Your task to perform on an android device: Open eBay Image 0: 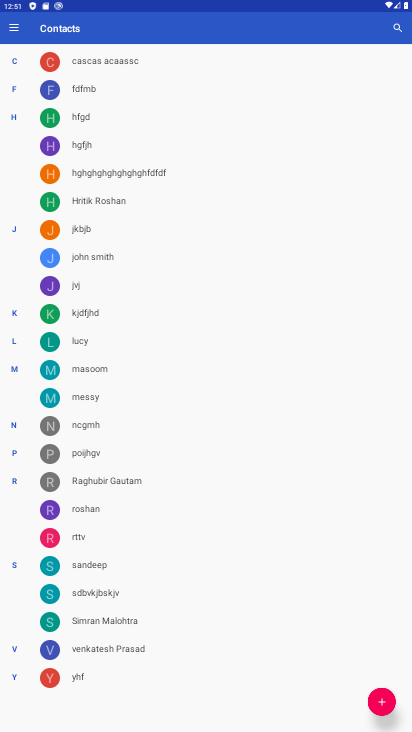
Step 0: press home button
Your task to perform on an android device: Open eBay Image 1: 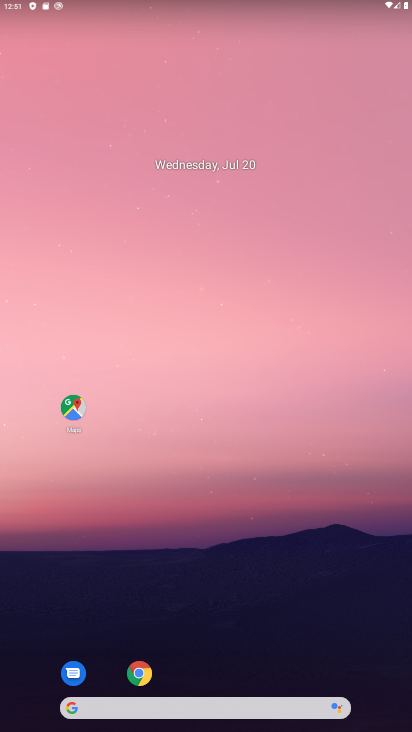
Step 1: click (237, 717)
Your task to perform on an android device: Open eBay Image 2: 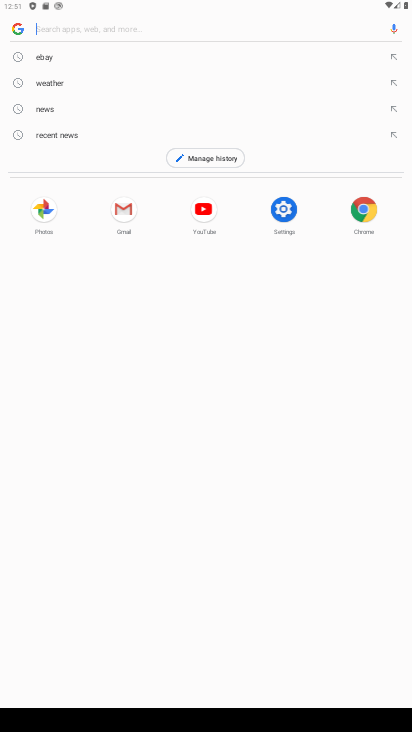
Step 2: click (74, 56)
Your task to perform on an android device: Open eBay Image 3: 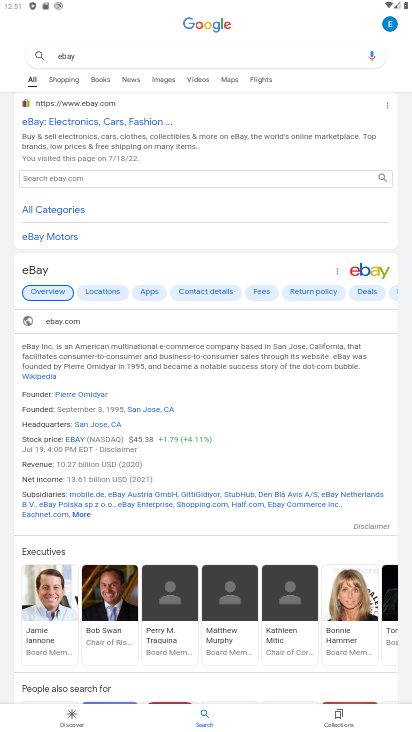
Step 3: click (49, 122)
Your task to perform on an android device: Open eBay Image 4: 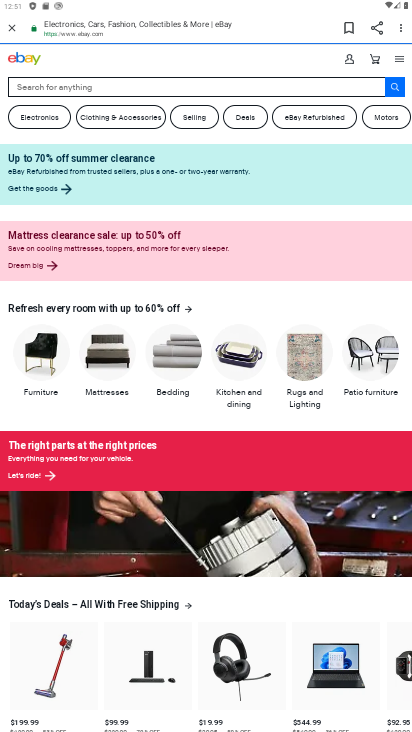
Step 4: task complete